Your task to perform on an android device: open chrome privacy settings Image 0: 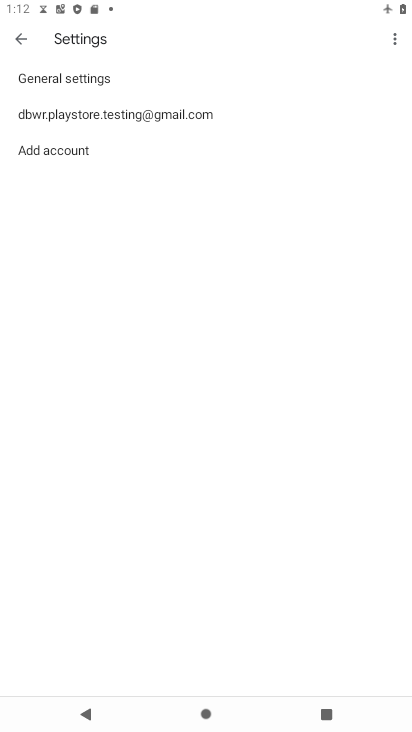
Step 0: press back button
Your task to perform on an android device: open chrome privacy settings Image 1: 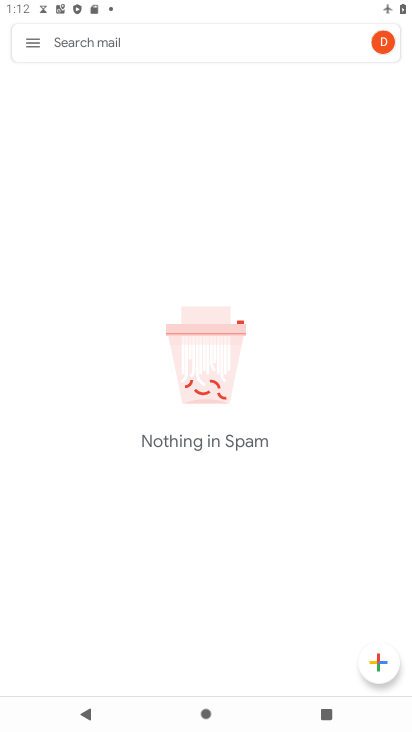
Step 1: press back button
Your task to perform on an android device: open chrome privacy settings Image 2: 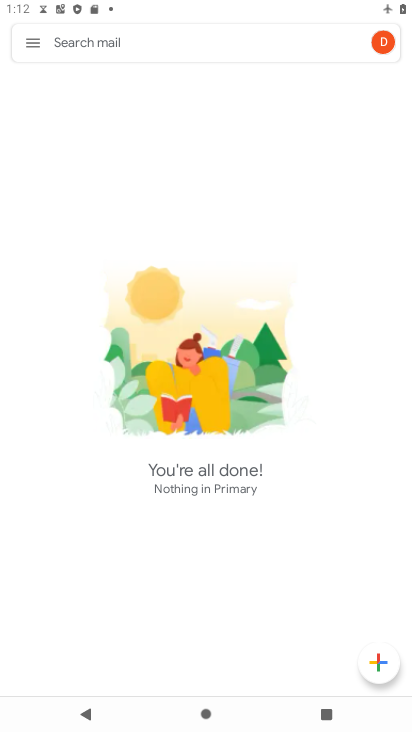
Step 2: press home button
Your task to perform on an android device: open chrome privacy settings Image 3: 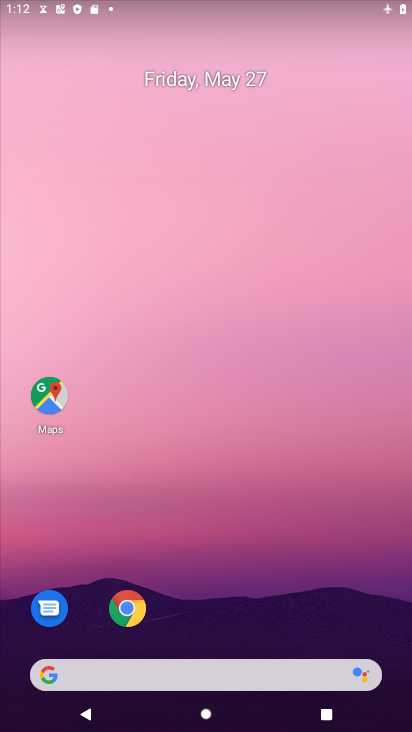
Step 3: click (134, 611)
Your task to perform on an android device: open chrome privacy settings Image 4: 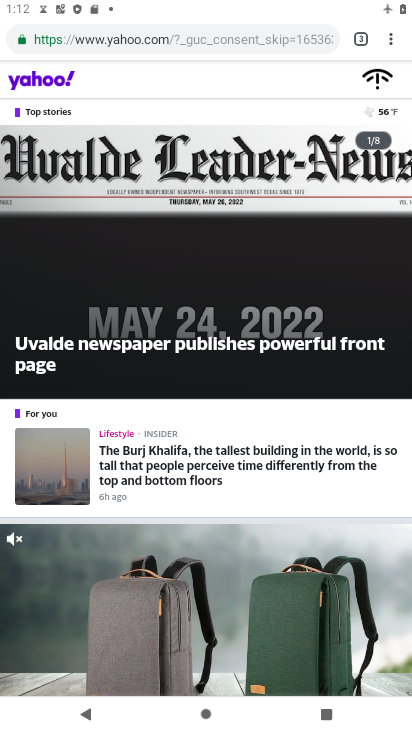
Step 4: drag from (387, 42) to (254, 434)
Your task to perform on an android device: open chrome privacy settings Image 5: 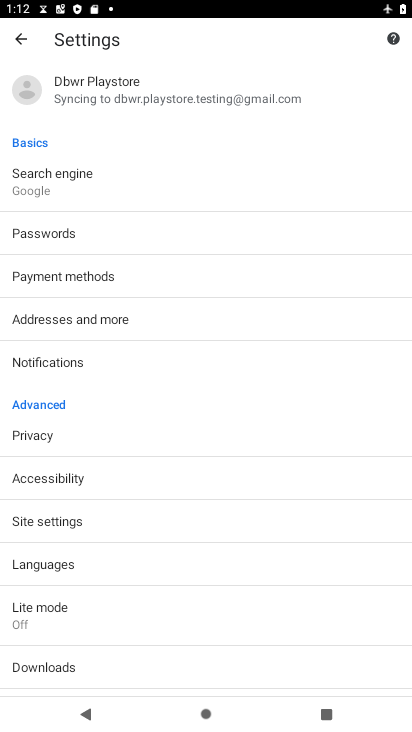
Step 5: click (48, 441)
Your task to perform on an android device: open chrome privacy settings Image 6: 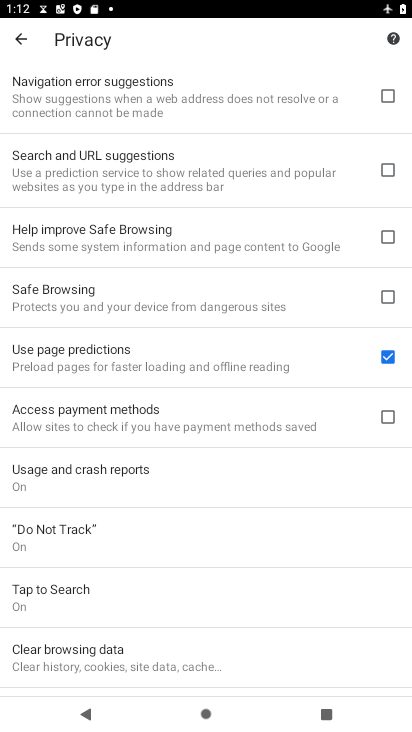
Step 6: task complete